Your task to perform on an android device: Go to battery settings Image 0: 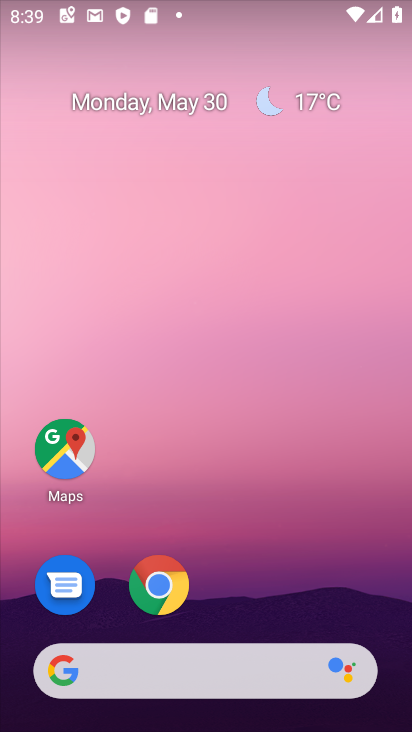
Step 0: drag from (234, 580) to (259, 41)
Your task to perform on an android device: Go to battery settings Image 1: 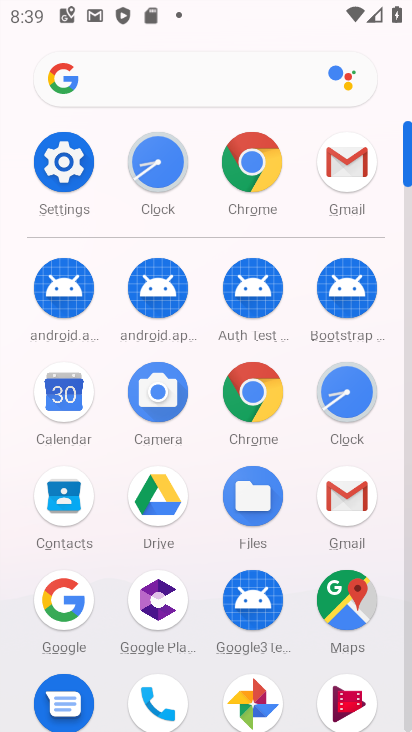
Step 1: click (55, 141)
Your task to perform on an android device: Go to battery settings Image 2: 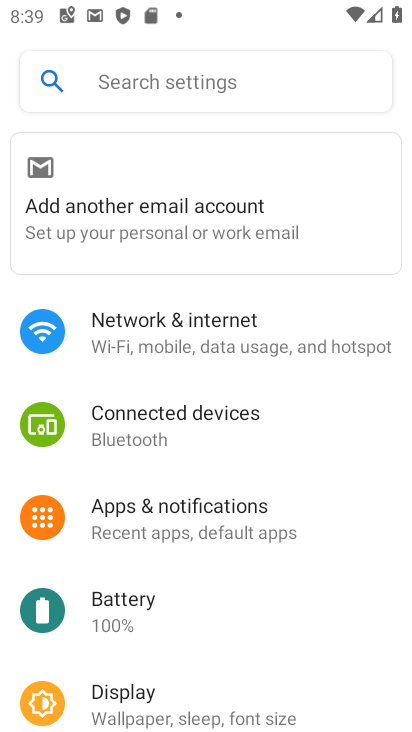
Step 2: drag from (227, 624) to (241, 221)
Your task to perform on an android device: Go to battery settings Image 3: 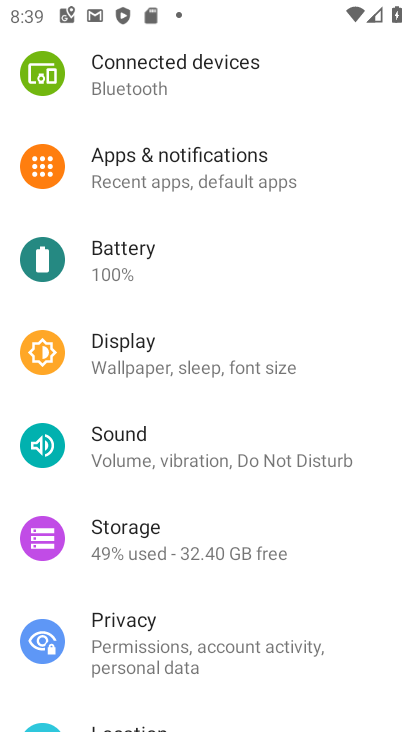
Step 3: click (157, 260)
Your task to perform on an android device: Go to battery settings Image 4: 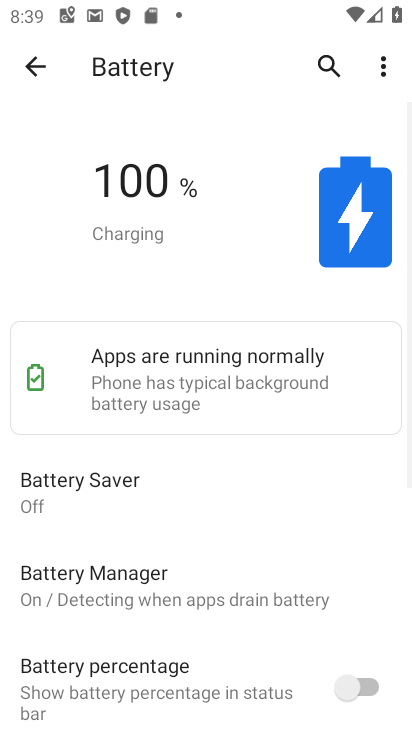
Step 4: task complete